Your task to perform on an android device: Add bose soundsport free to the cart on ebay.com Image 0: 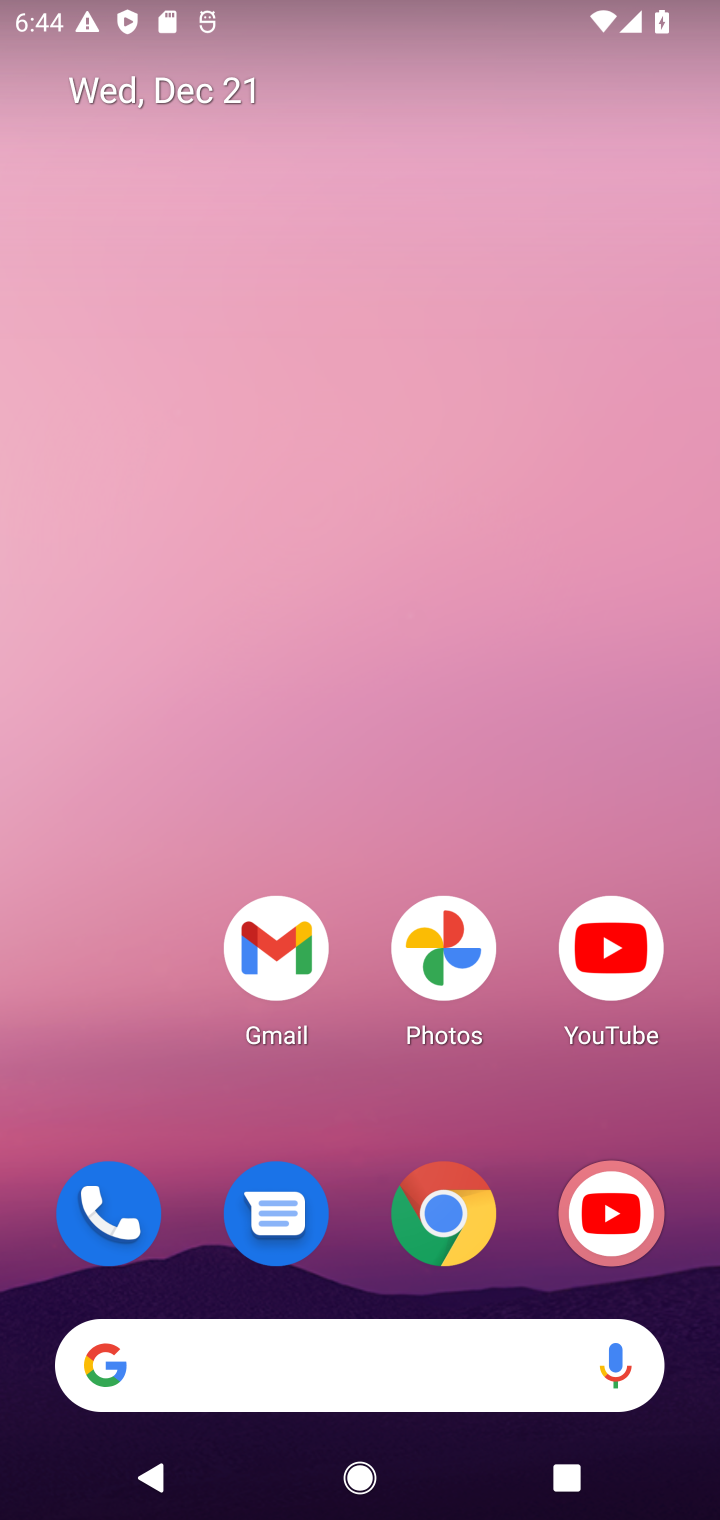
Step 0: click (483, 1201)
Your task to perform on an android device: Add bose soundsport free to the cart on ebay.com Image 1: 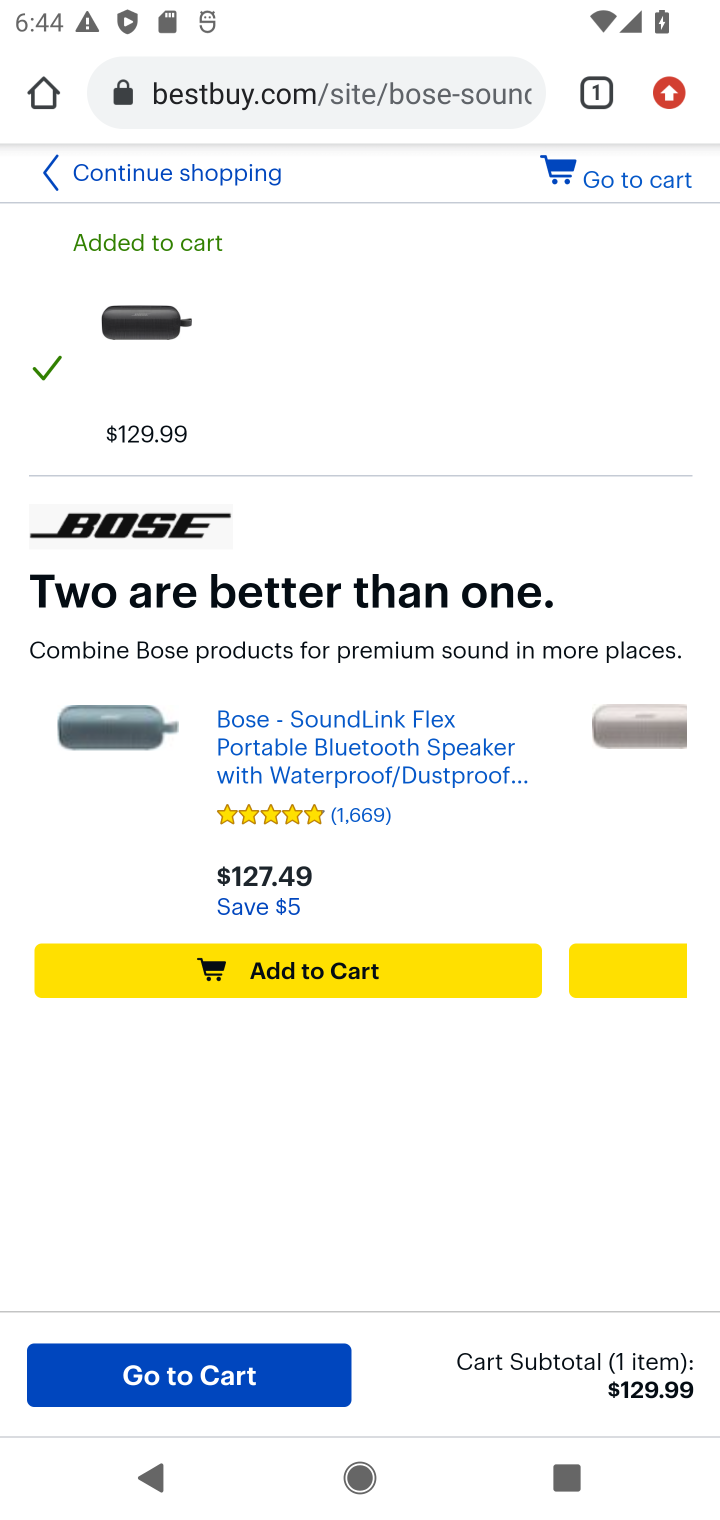
Step 1: click (385, 95)
Your task to perform on an android device: Add bose soundsport free to the cart on ebay.com Image 2: 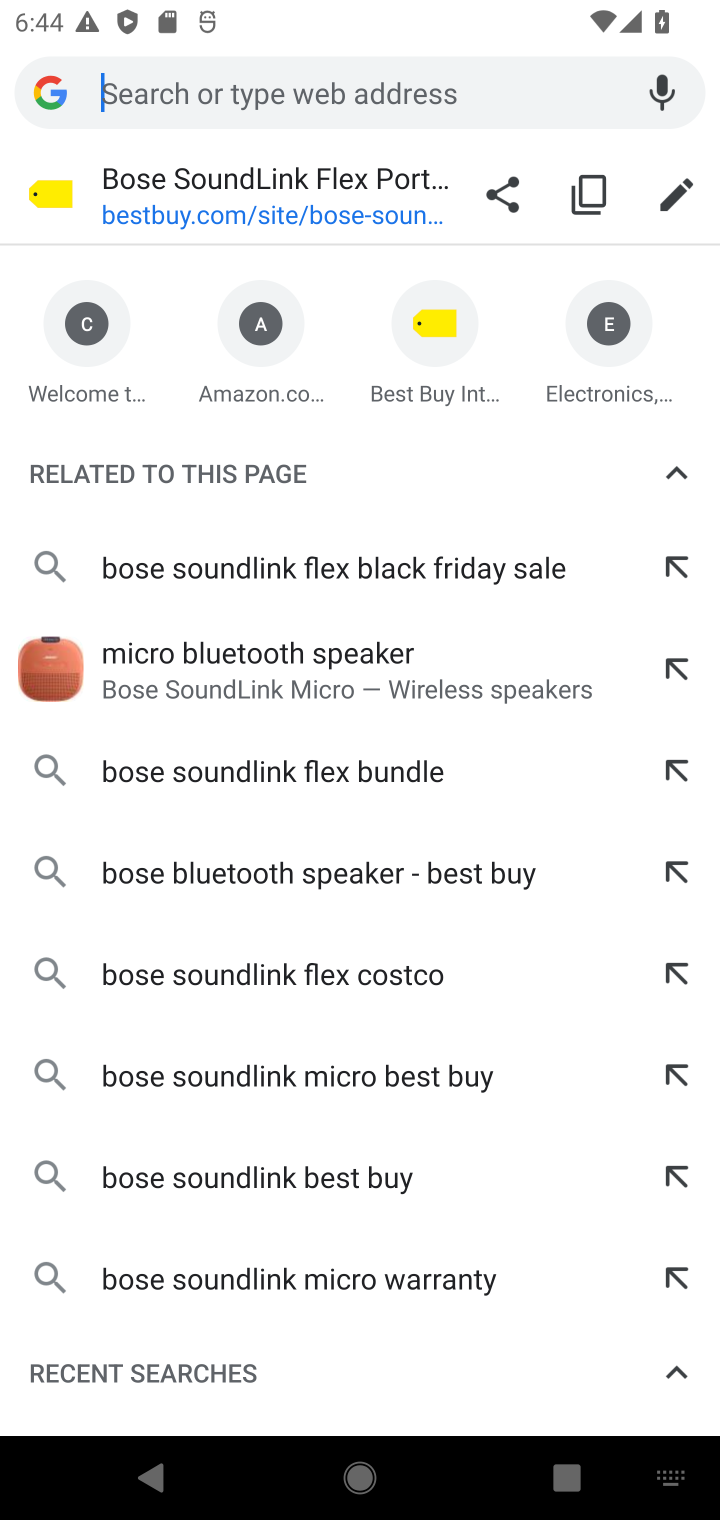
Step 2: type "ebay"
Your task to perform on an android device: Add bose soundsport free to the cart on ebay.com Image 3: 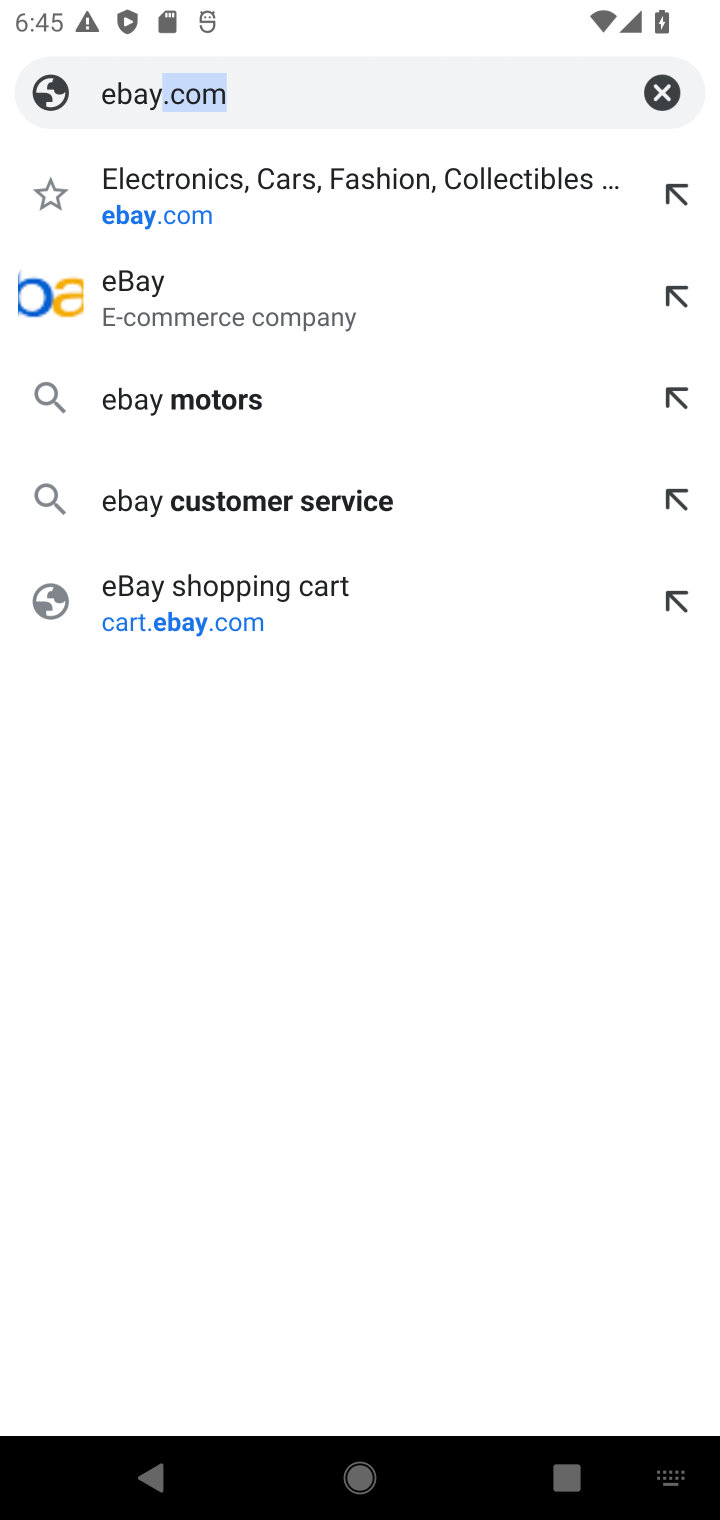
Step 3: click (256, 152)
Your task to perform on an android device: Add bose soundsport free to the cart on ebay.com Image 4: 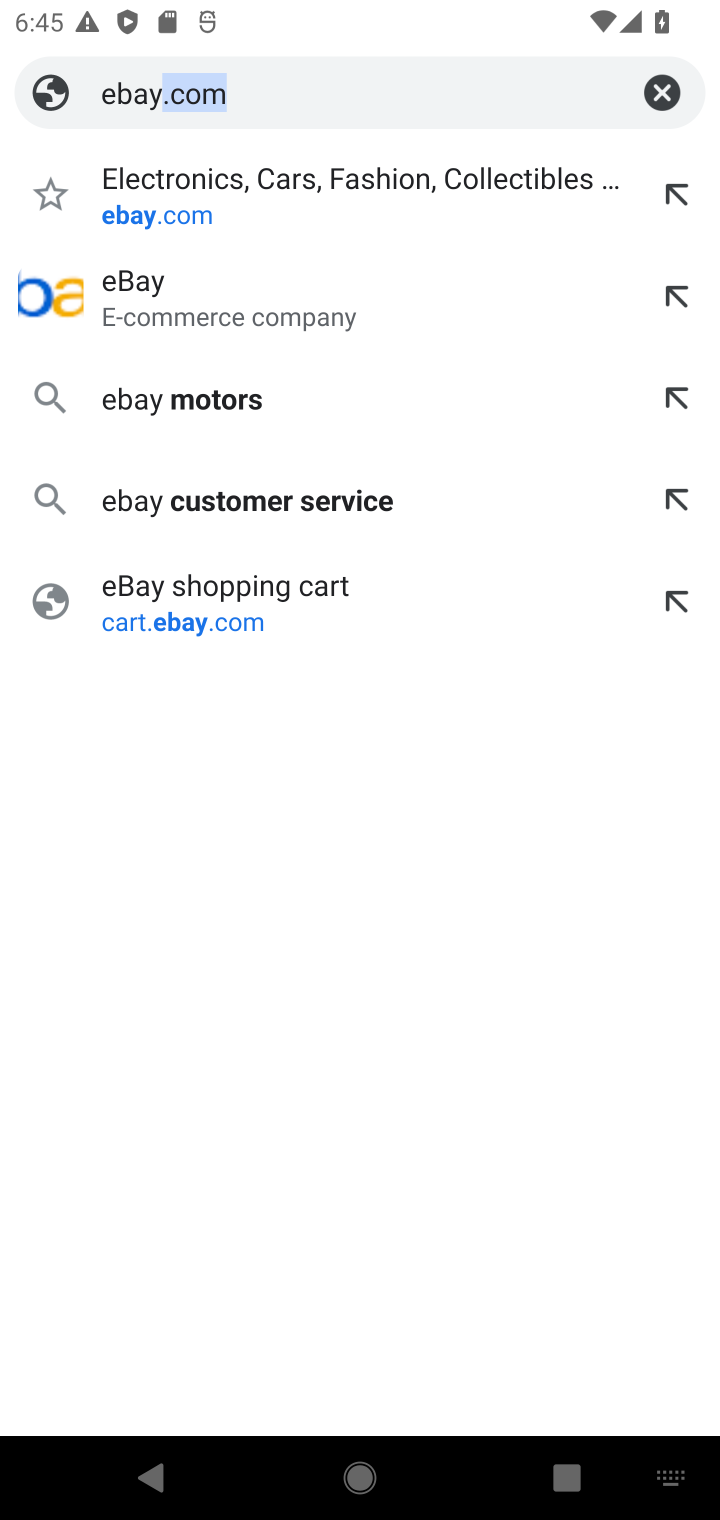
Step 4: click (275, 201)
Your task to perform on an android device: Add bose soundsport free to the cart on ebay.com Image 5: 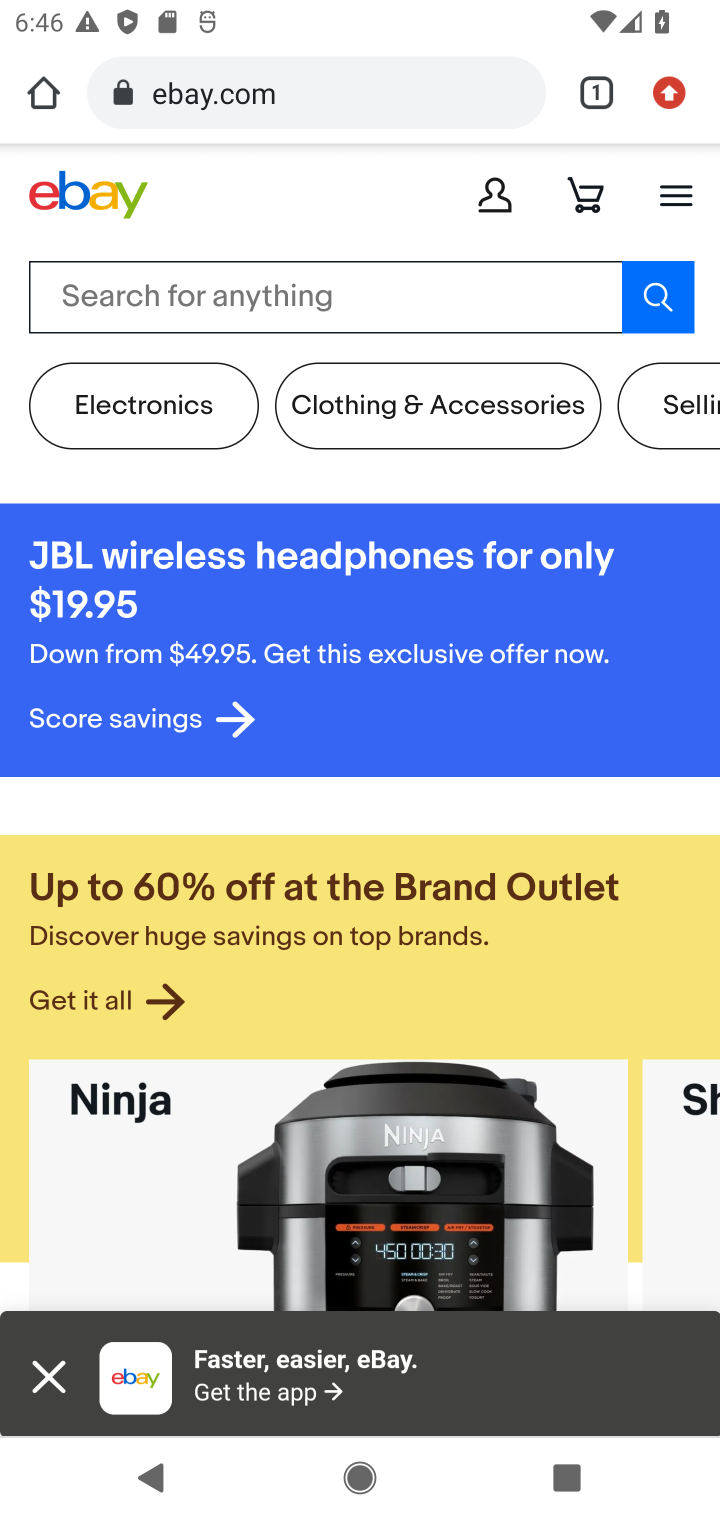
Step 5: click (377, 321)
Your task to perform on an android device: Add bose soundsport free to the cart on ebay.com Image 6: 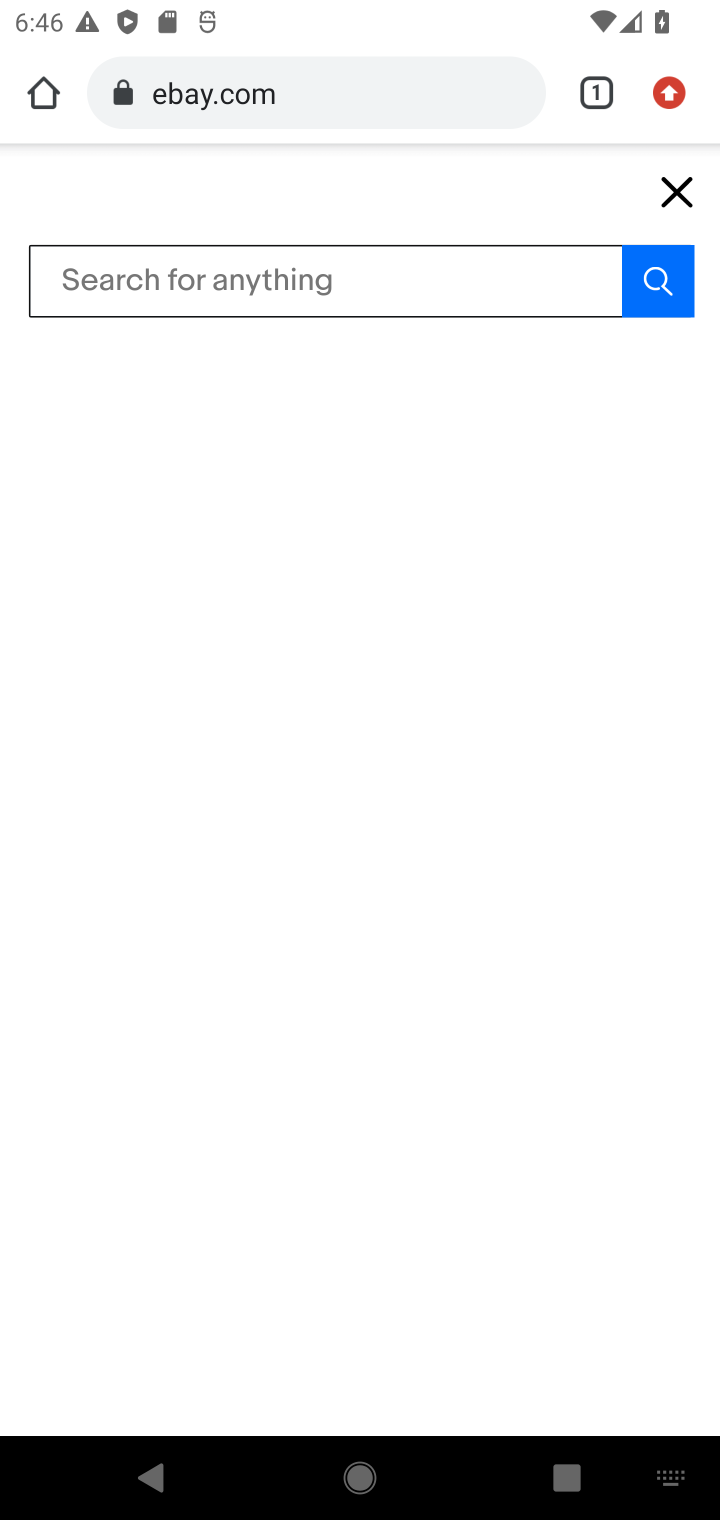
Step 6: type "bose soundsport"
Your task to perform on an android device: Add bose soundsport free to the cart on ebay.com Image 7: 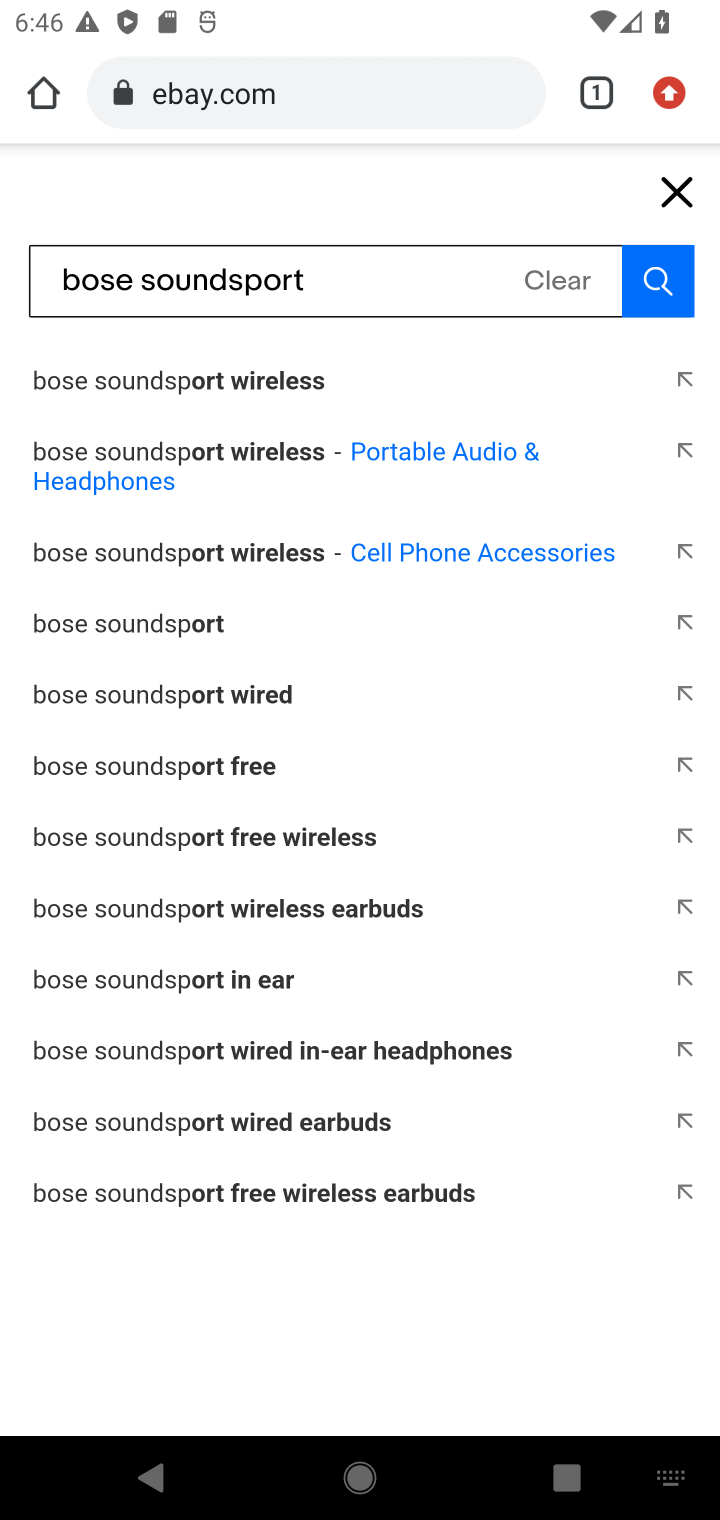
Step 7: click (654, 299)
Your task to perform on an android device: Add bose soundsport free to the cart on ebay.com Image 8: 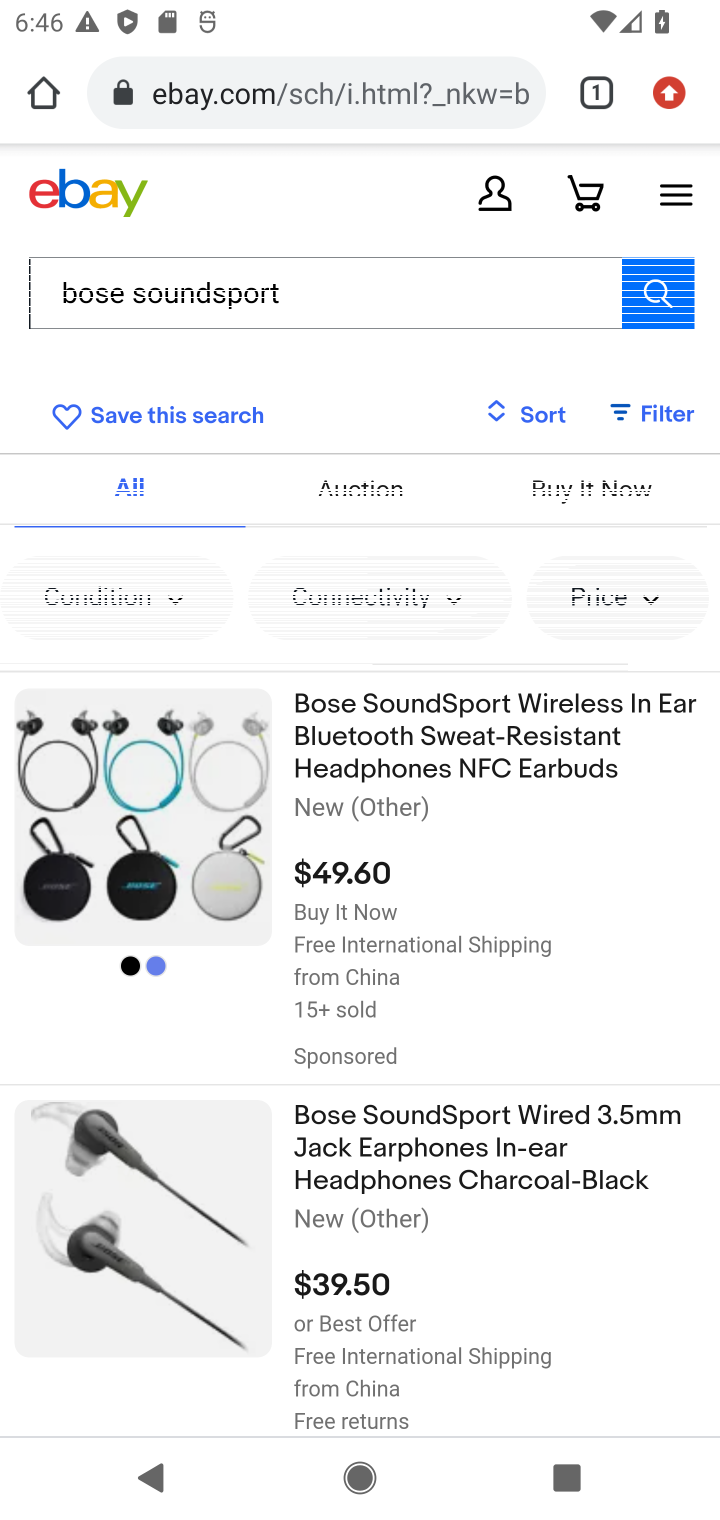
Step 8: click (348, 777)
Your task to perform on an android device: Add bose soundsport free to the cart on ebay.com Image 9: 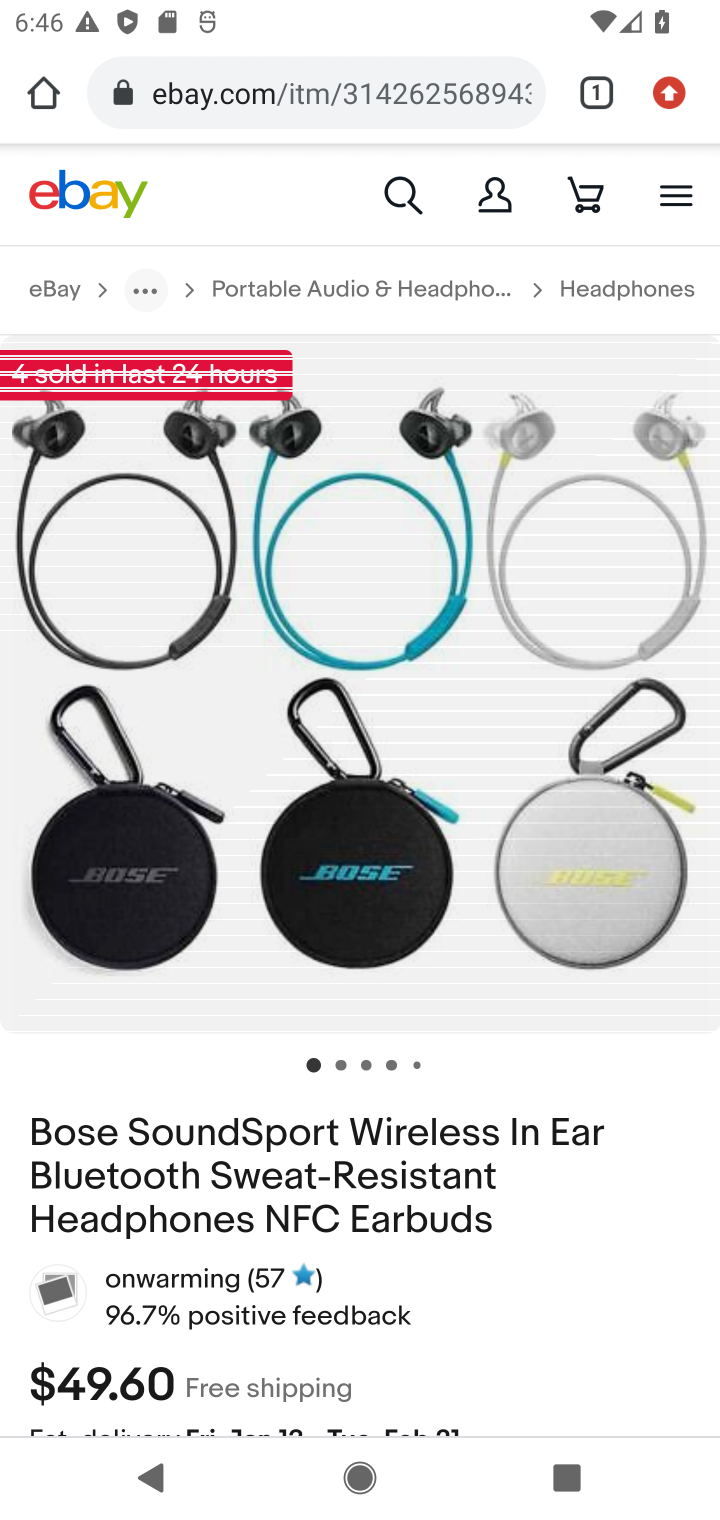
Step 9: drag from (463, 1130) to (552, 373)
Your task to perform on an android device: Add bose soundsport free to the cart on ebay.com Image 10: 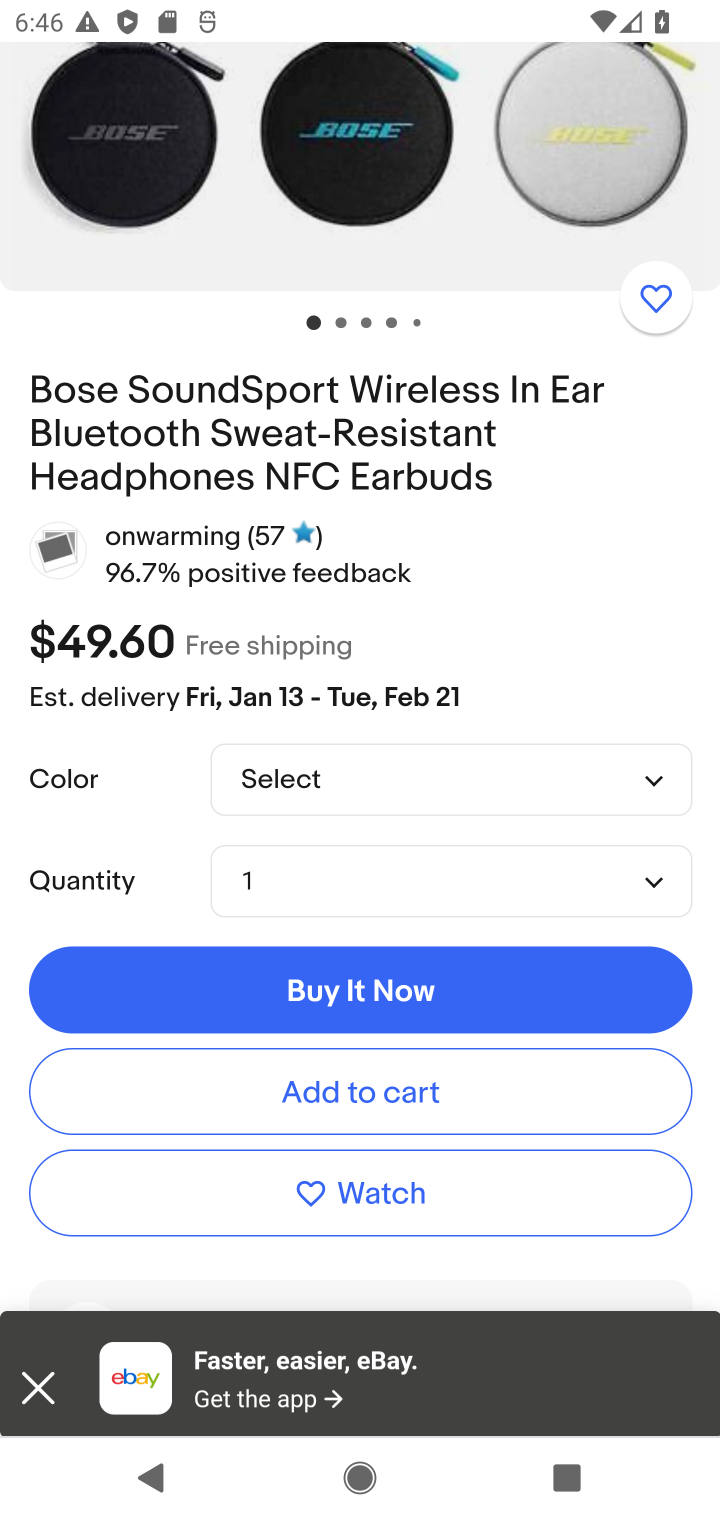
Step 10: click (497, 1119)
Your task to perform on an android device: Add bose soundsport free to the cart on ebay.com Image 11: 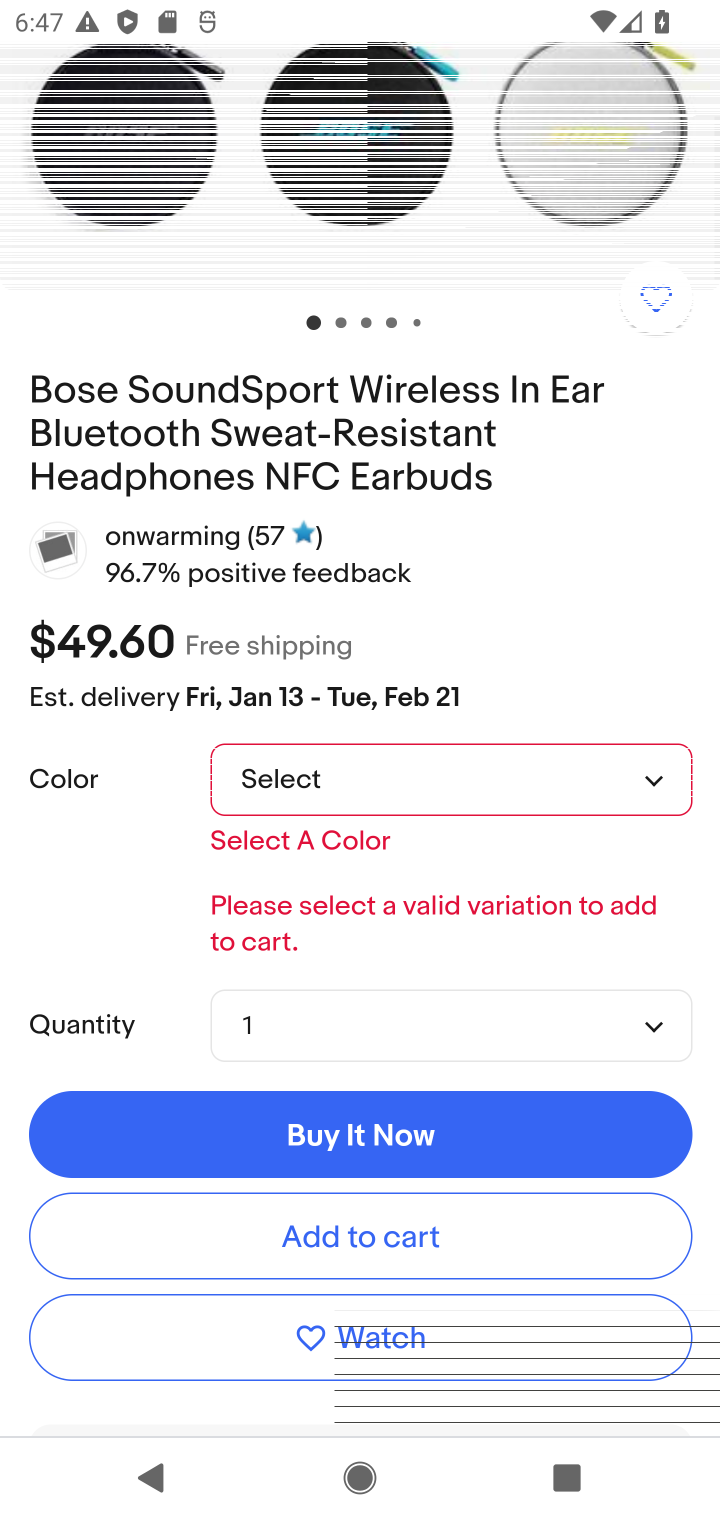
Step 11: task complete